Your task to perform on an android device: change text size in settings app Image 0: 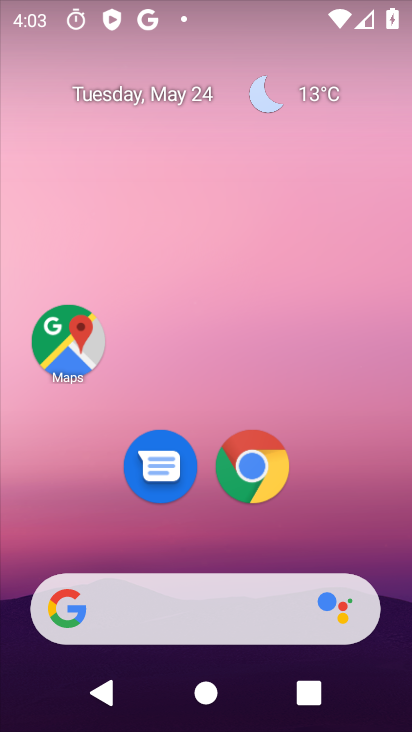
Step 0: drag from (337, 495) to (292, 92)
Your task to perform on an android device: change text size in settings app Image 1: 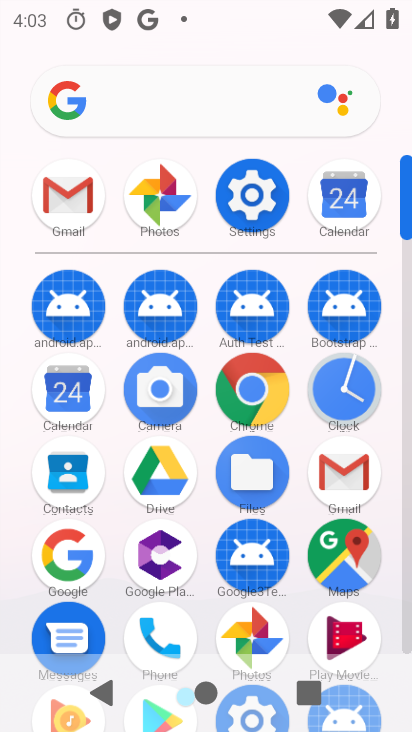
Step 1: click (259, 201)
Your task to perform on an android device: change text size in settings app Image 2: 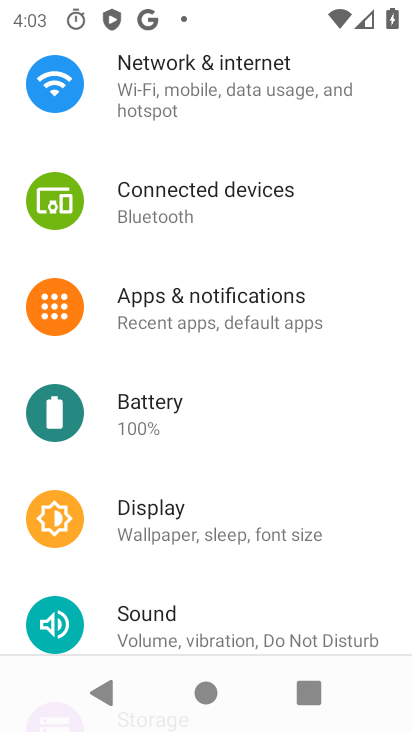
Step 2: drag from (162, 496) to (178, 124)
Your task to perform on an android device: change text size in settings app Image 3: 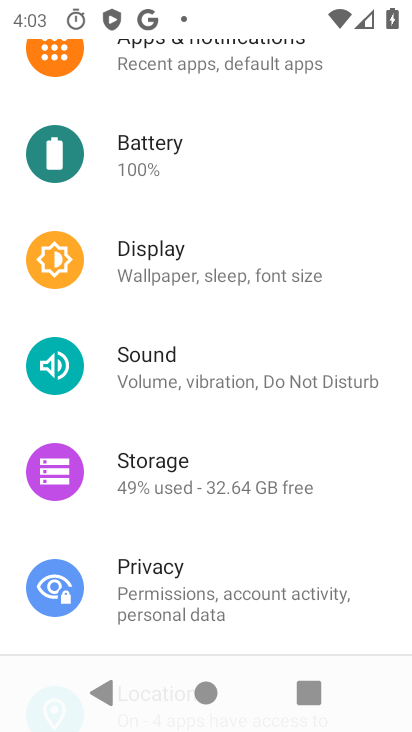
Step 3: drag from (202, 545) to (213, 124)
Your task to perform on an android device: change text size in settings app Image 4: 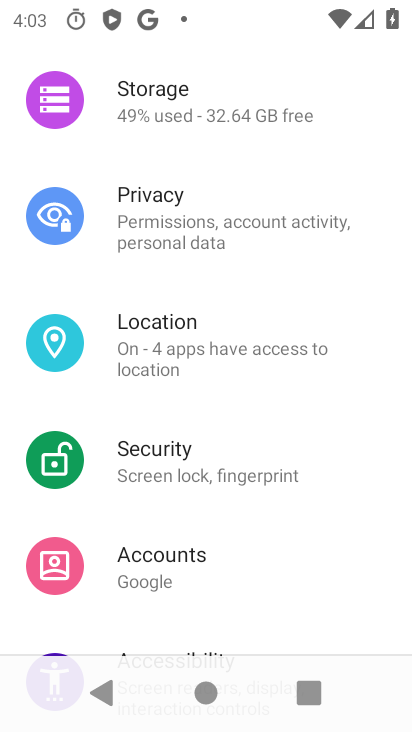
Step 4: drag from (206, 221) to (170, 590)
Your task to perform on an android device: change text size in settings app Image 5: 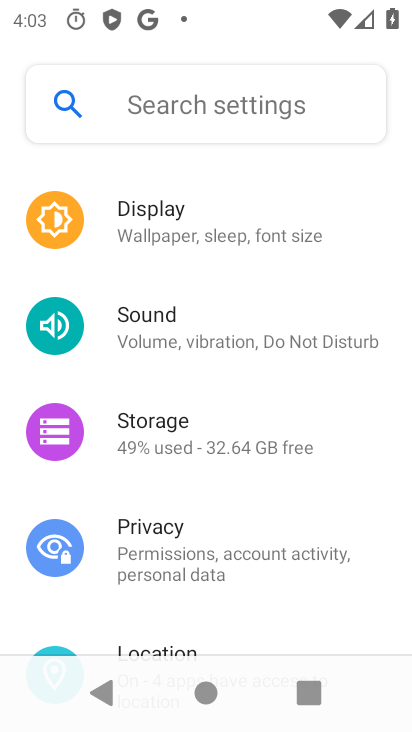
Step 5: click (176, 240)
Your task to perform on an android device: change text size in settings app Image 6: 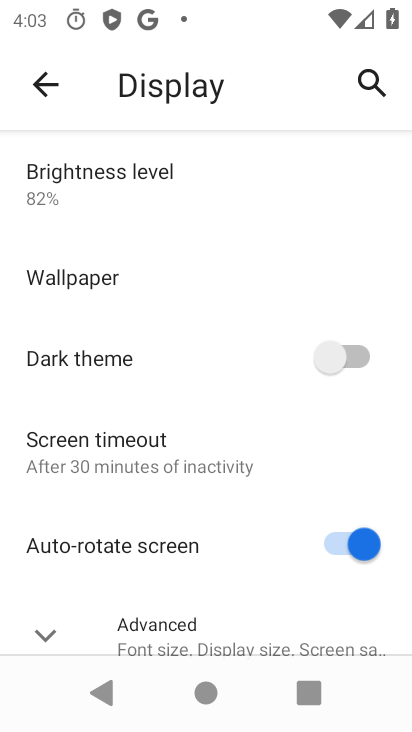
Step 6: drag from (194, 494) to (229, 201)
Your task to perform on an android device: change text size in settings app Image 7: 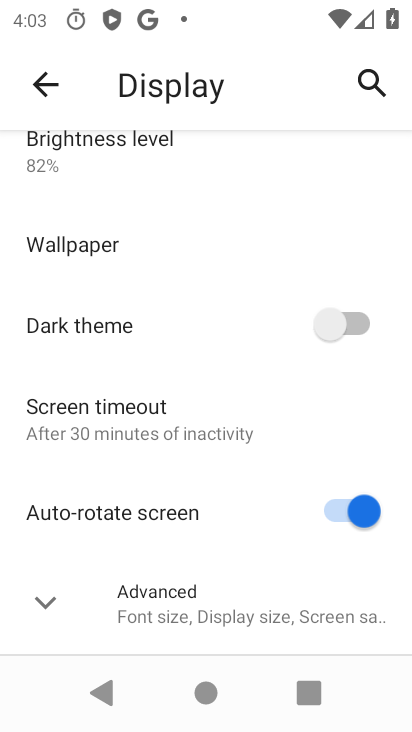
Step 7: click (181, 612)
Your task to perform on an android device: change text size in settings app Image 8: 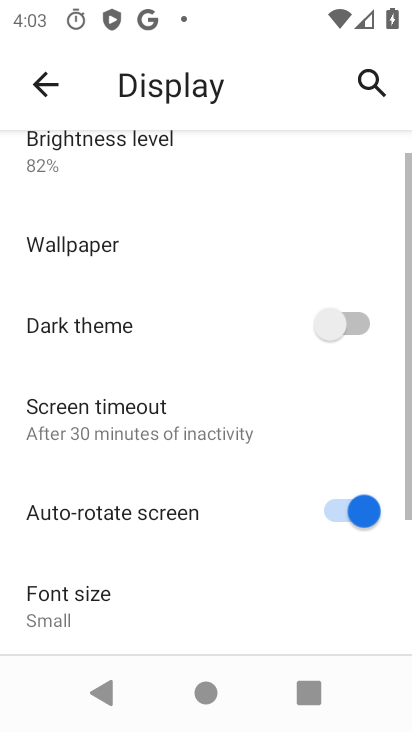
Step 8: drag from (132, 613) to (164, 272)
Your task to perform on an android device: change text size in settings app Image 9: 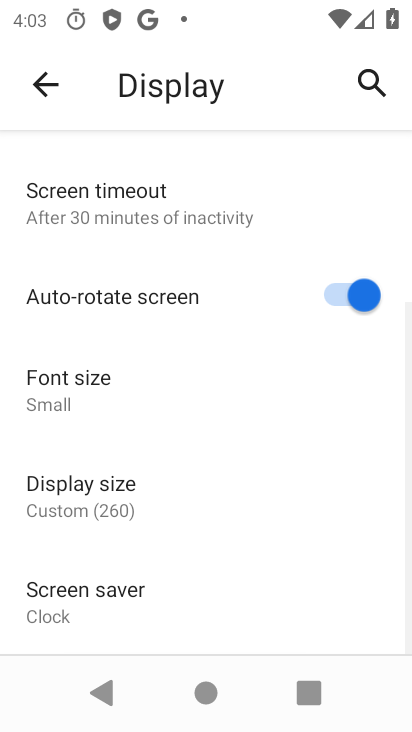
Step 9: click (42, 360)
Your task to perform on an android device: change text size in settings app Image 10: 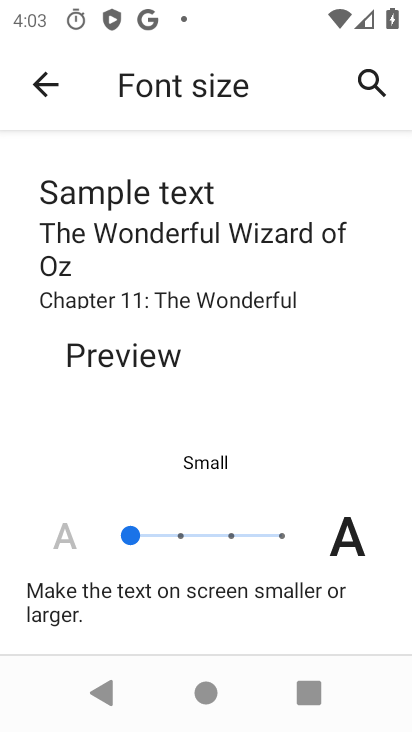
Step 10: click (156, 522)
Your task to perform on an android device: change text size in settings app Image 11: 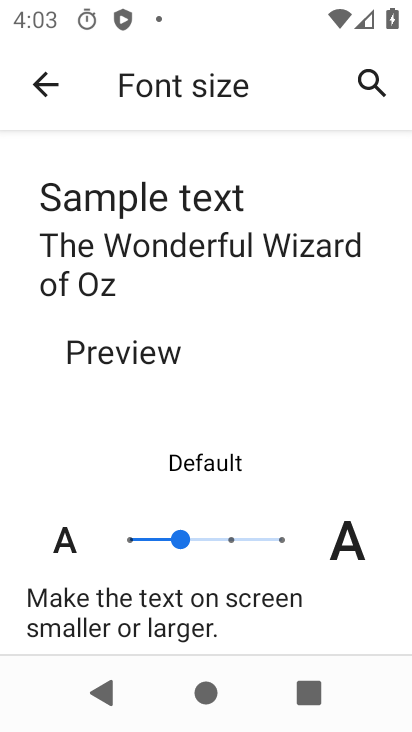
Step 11: task complete